Your task to perform on an android device: toggle pop-ups in chrome Image 0: 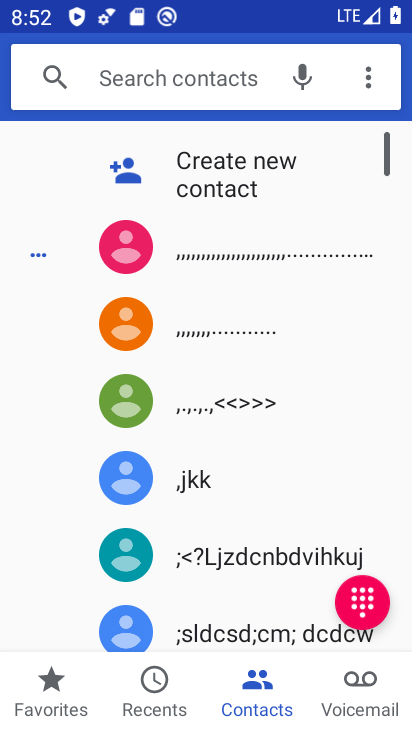
Step 0: press home button
Your task to perform on an android device: toggle pop-ups in chrome Image 1: 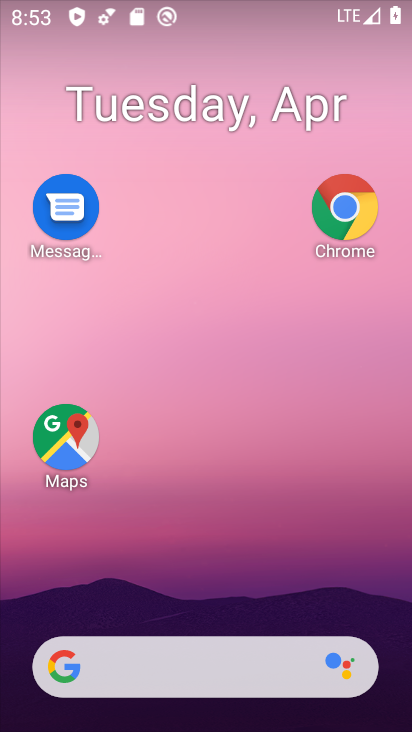
Step 1: click (348, 190)
Your task to perform on an android device: toggle pop-ups in chrome Image 2: 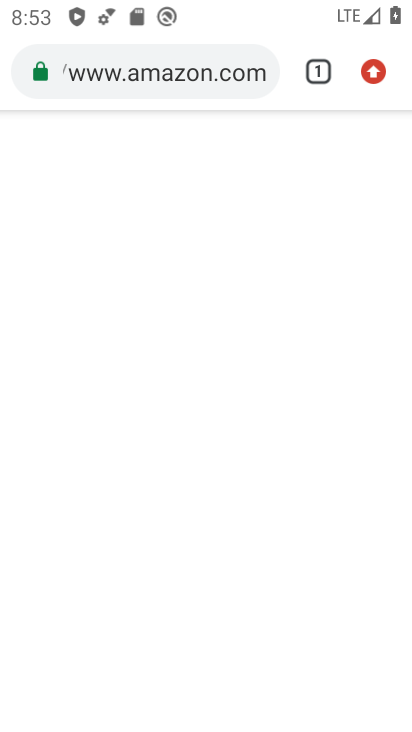
Step 2: click (362, 78)
Your task to perform on an android device: toggle pop-ups in chrome Image 3: 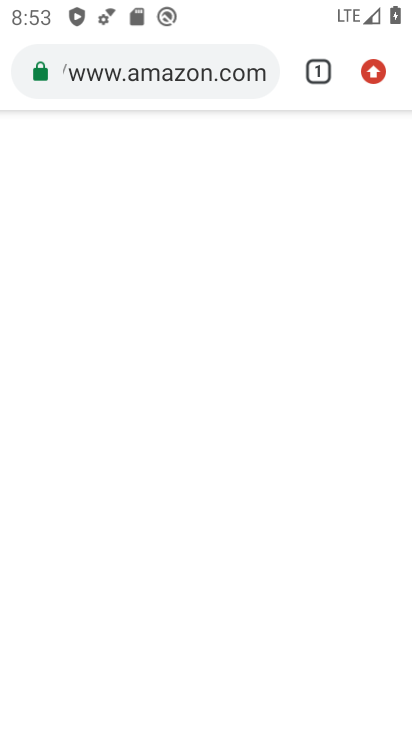
Step 3: click (362, 78)
Your task to perform on an android device: toggle pop-ups in chrome Image 4: 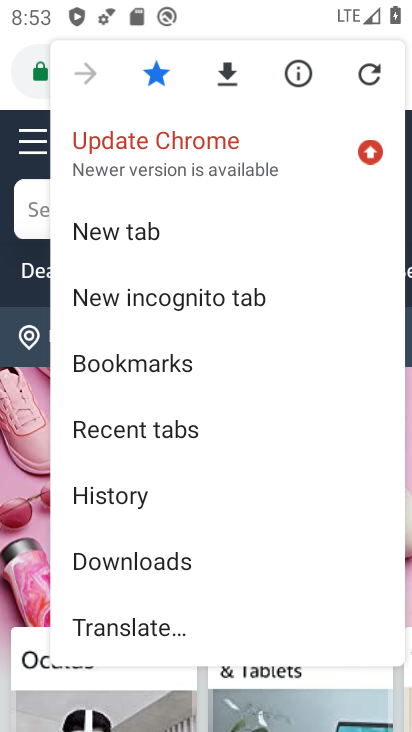
Step 4: drag from (251, 473) to (239, 56)
Your task to perform on an android device: toggle pop-ups in chrome Image 5: 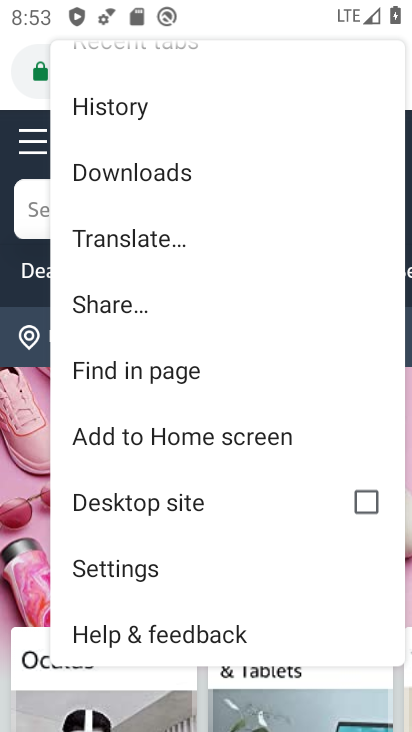
Step 5: click (98, 574)
Your task to perform on an android device: toggle pop-ups in chrome Image 6: 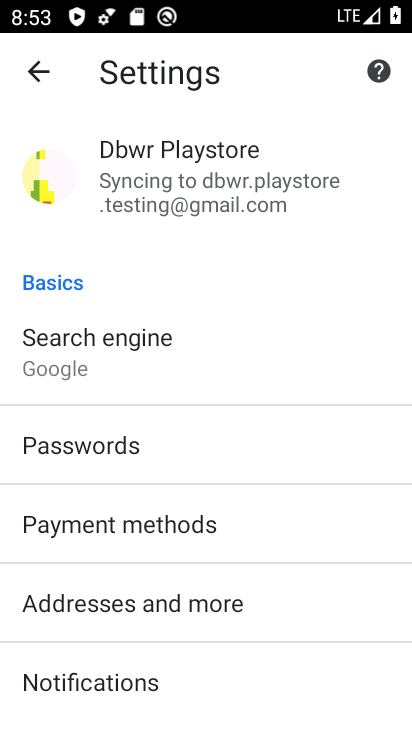
Step 6: drag from (107, 639) to (101, 294)
Your task to perform on an android device: toggle pop-ups in chrome Image 7: 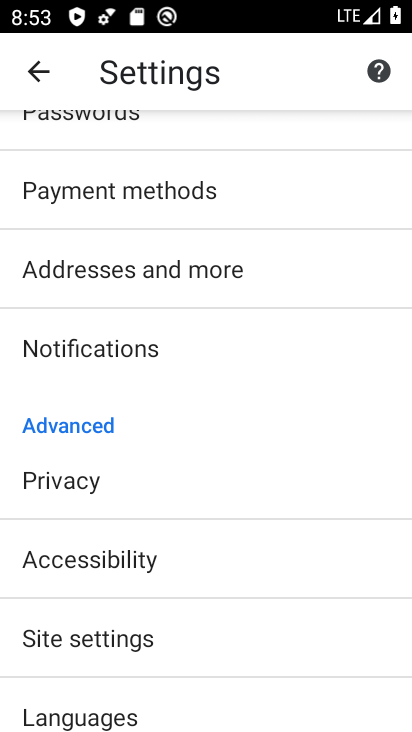
Step 7: click (185, 644)
Your task to perform on an android device: toggle pop-ups in chrome Image 8: 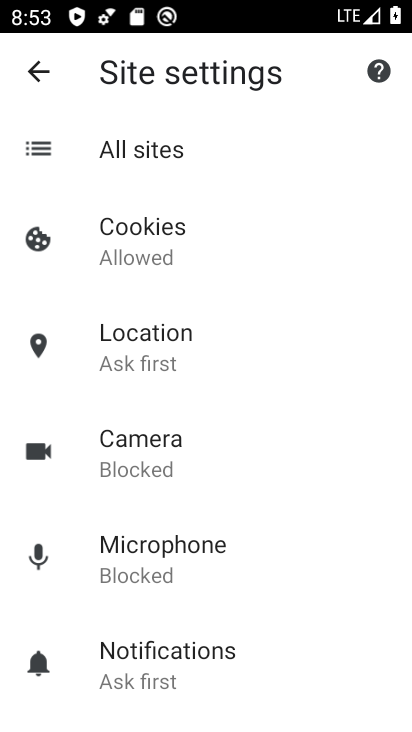
Step 8: drag from (227, 606) to (194, 93)
Your task to perform on an android device: toggle pop-ups in chrome Image 9: 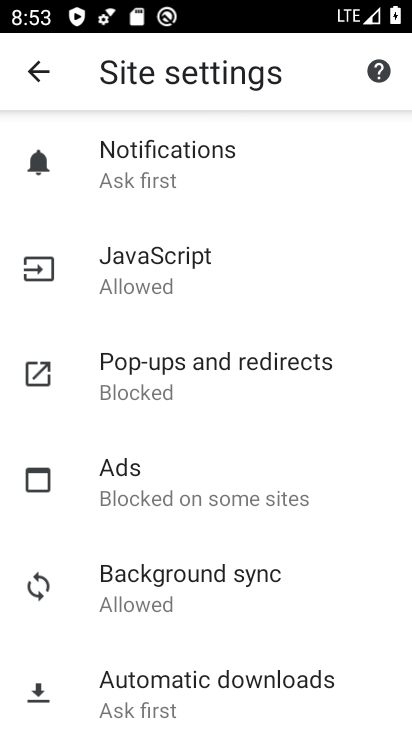
Step 9: click (176, 386)
Your task to perform on an android device: toggle pop-ups in chrome Image 10: 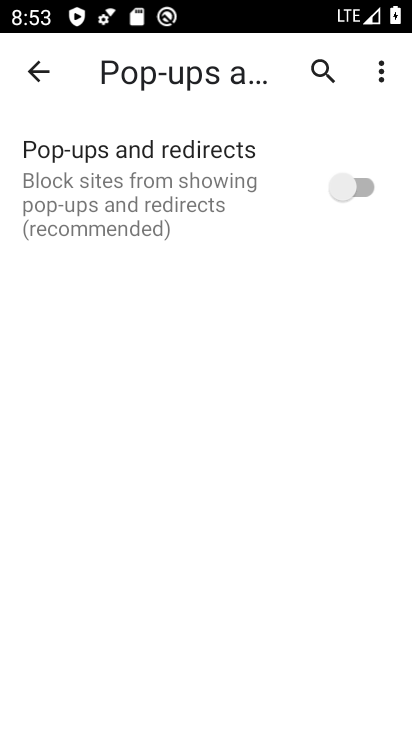
Step 10: click (358, 172)
Your task to perform on an android device: toggle pop-ups in chrome Image 11: 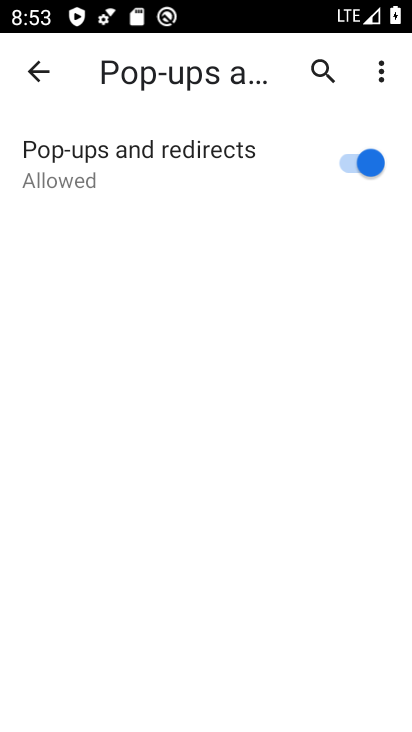
Step 11: task complete